Your task to perform on an android device: Do I have any events today? Image 0: 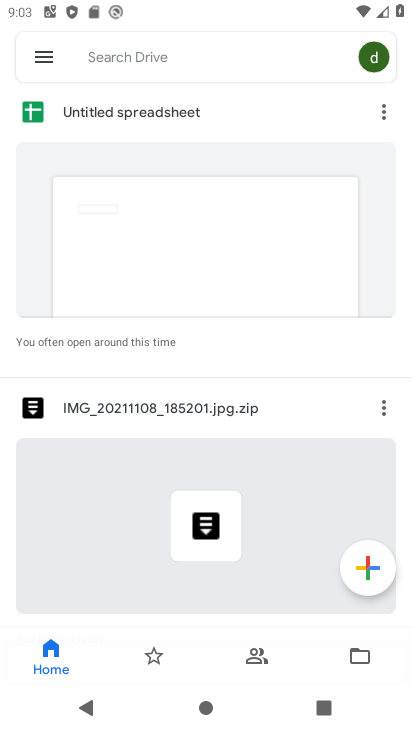
Step 0: press home button
Your task to perform on an android device: Do I have any events today? Image 1: 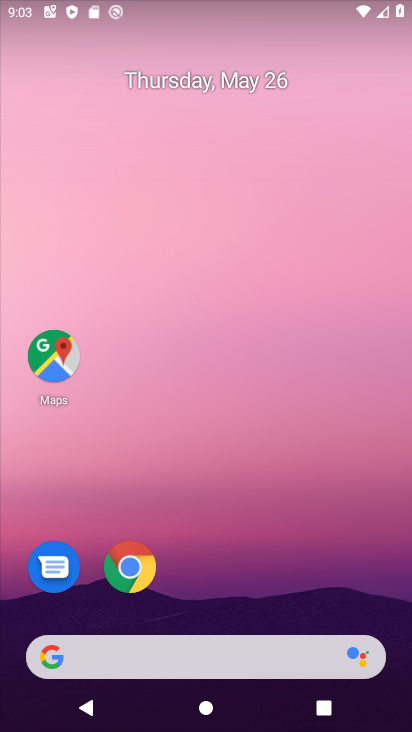
Step 1: drag from (168, 661) to (325, 67)
Your task to perform on an android device: Do I have any events today? Image 2: 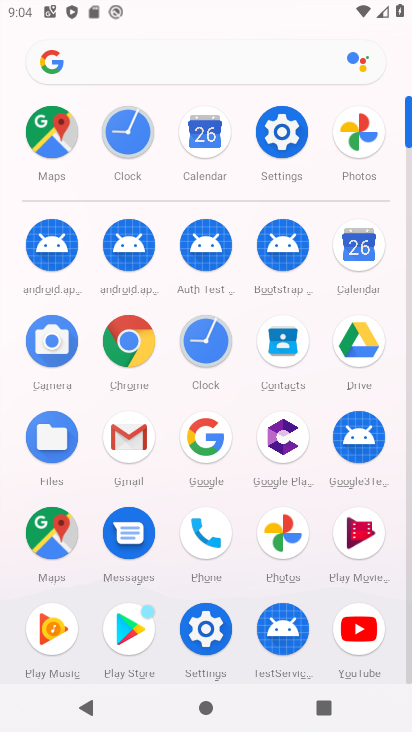
Step 2: click (202, 136)
Your task to perform on an android device: Do I have any events today? Image 3: 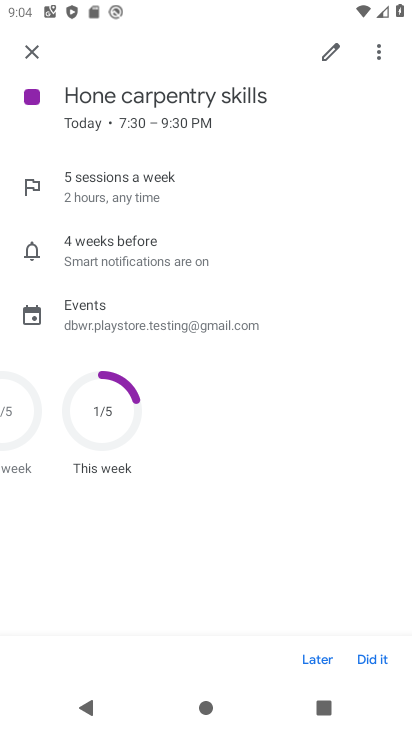
Step 3: task complete